Your task to perform on an android device: Go to CNN.com Image 0: 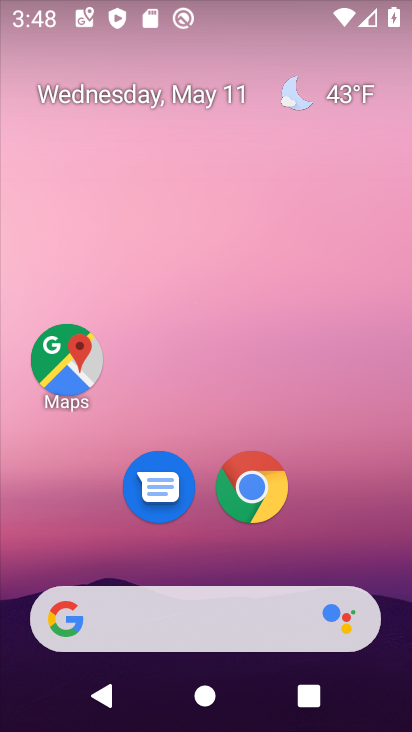
Step 0: click (263, 497)
Your task to perform on an android device: Go to CNN.com Image 1: 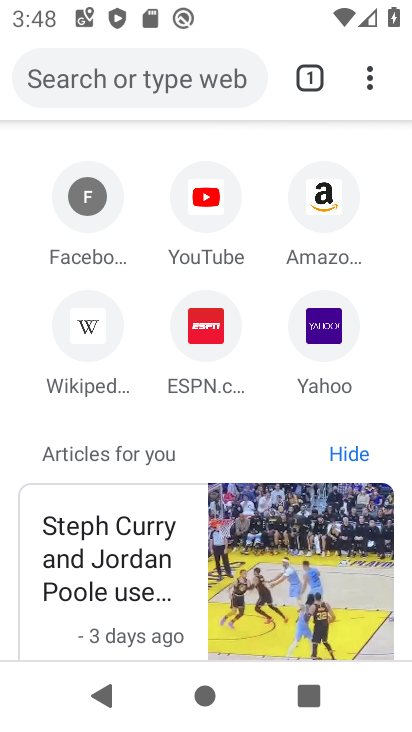
Step 1: click (193, 79)
Your task to perform on an android device: Go to CNN.com Image 2: 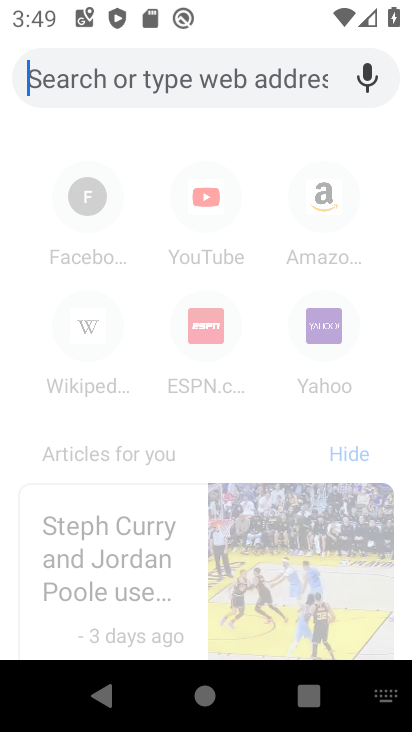
Step 2: type "www.cnn.com"
Your task to perform on an android device: Go to CNN.com Image 3: 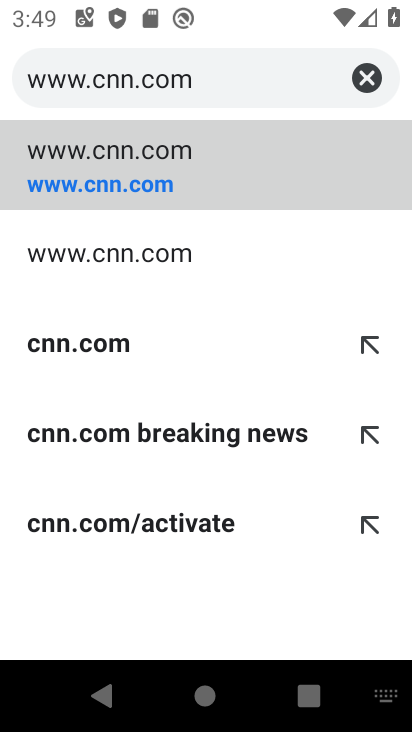
Step 3: click (126, 182)
Your task to perform on an android device: Go to CNN.com Image 4: 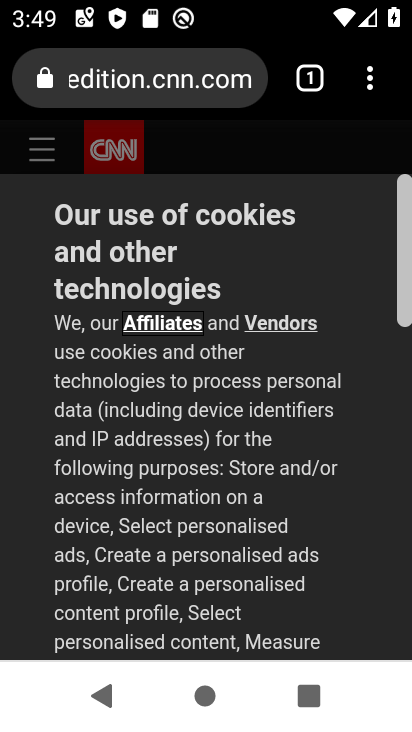
Step 4: task complete